Your task to perform on an android device: Search for vegetarian restaurants on Maps Image 0: 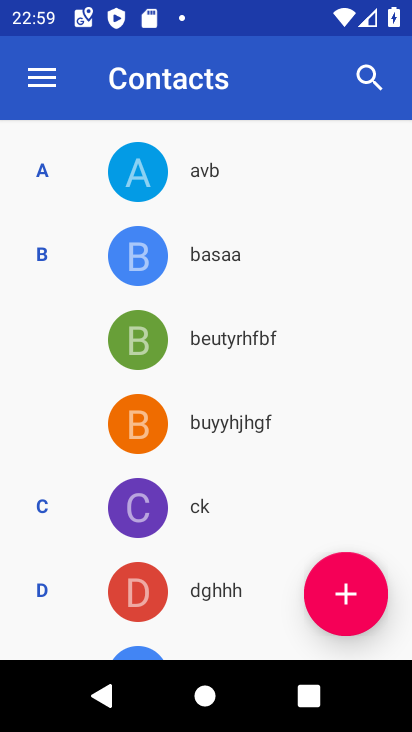
Step 0: press home button
Your task to perform on an android device: Search for vegetarian restaurants on Maps Image 1: 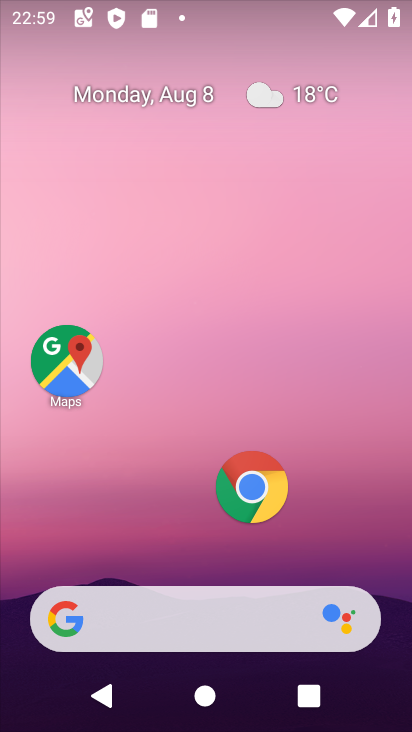
Step 1: drag from (204, 528) to (202, 43)
Your task to perform on an android device: Search for vegetarian restaurants on Maps Image 2: 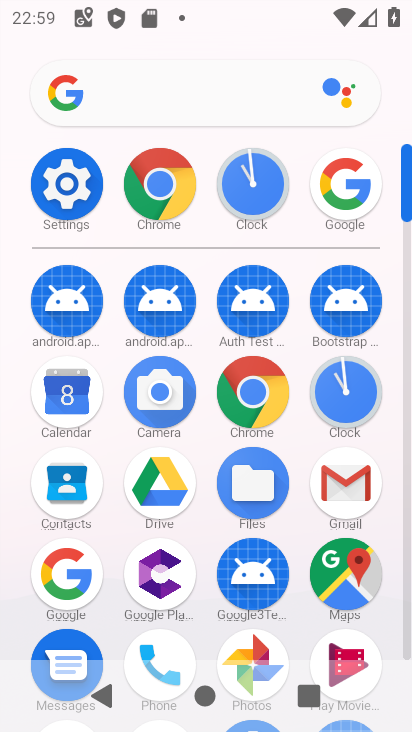
Step 2: click (338, 572)
Your task to perform on an android device: Search for vegetarian restaurants on Maps Image 3: 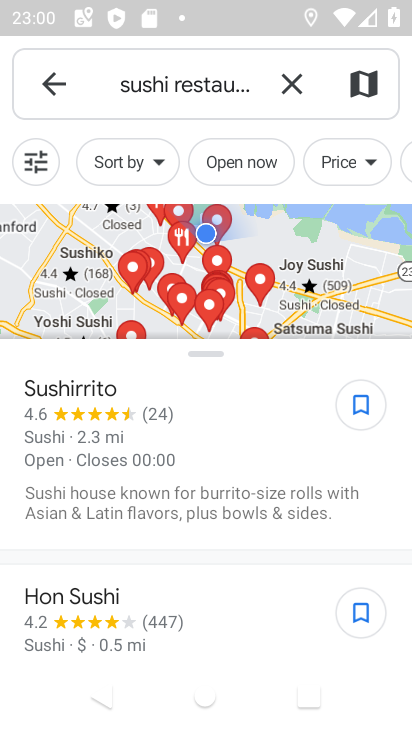
Step 3: click (291, 77)
Your task to perform on an android device: Search for vegetarian restaurants on Maps Image 4: 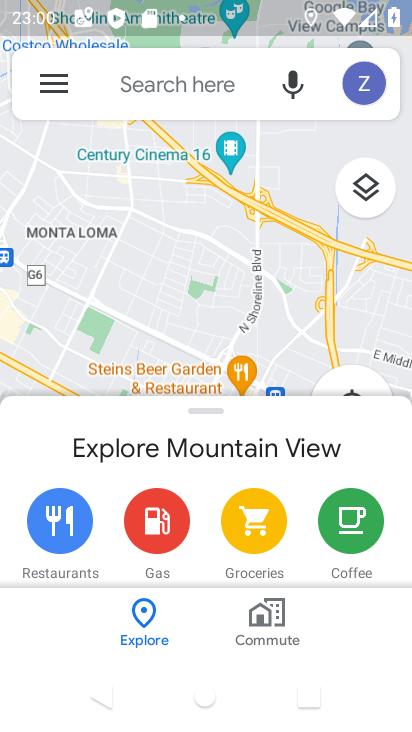
Step 4: click (206, 88)
Your task to perform on an android device: Search for vegetarian restaurants on Maps Image 5: 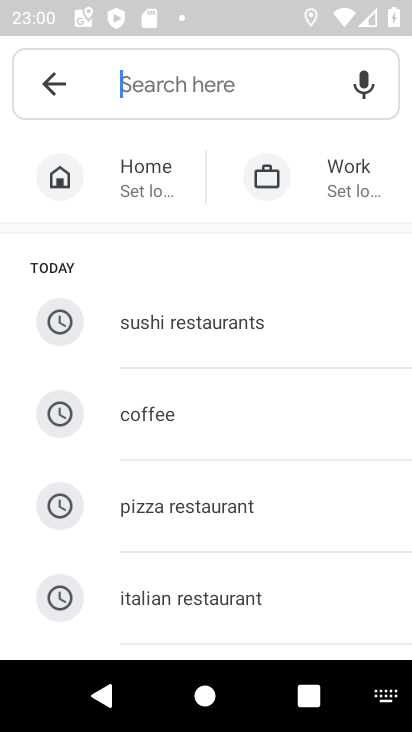
Step 5: type "Vegetarian restaurants"
Your task to perform on an android device: Search for vegetarian restaurants on Maps Image 6: 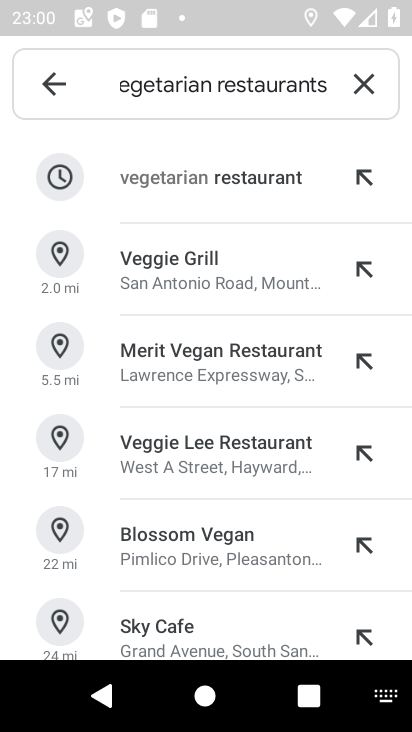
Step 6: click (201, 181)
Your task to perform on an android device: Search for vegetarian restaurants on Maps Image 7: 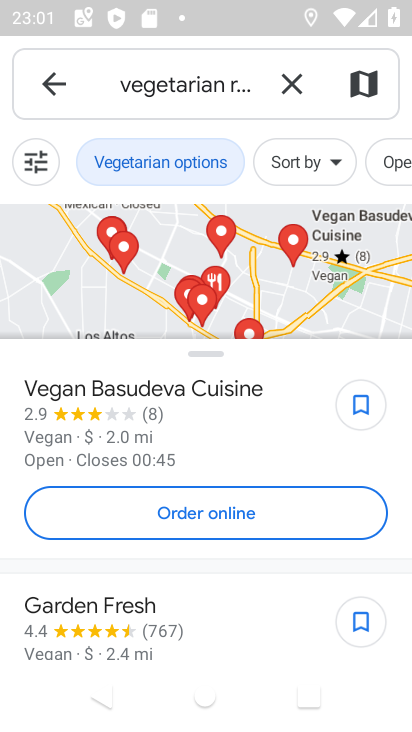
Step 7: task complete